Your task to perform on an android device: Search for Mexican restaurants on Maps Image 0: 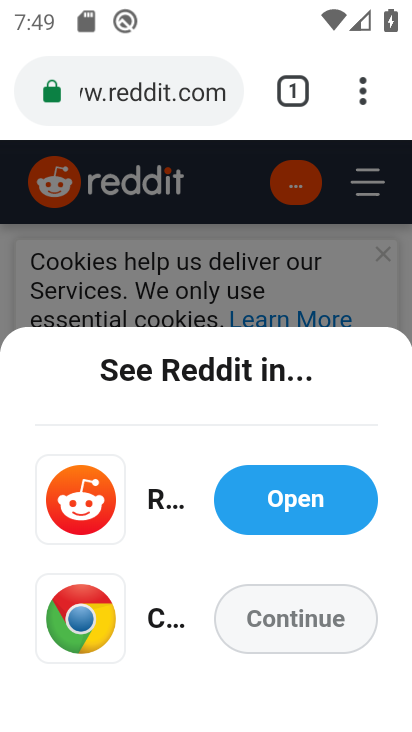
Step 0: press home button
Your task to perform on an android device: Search for Mexican restaurants on Maps Image 1: 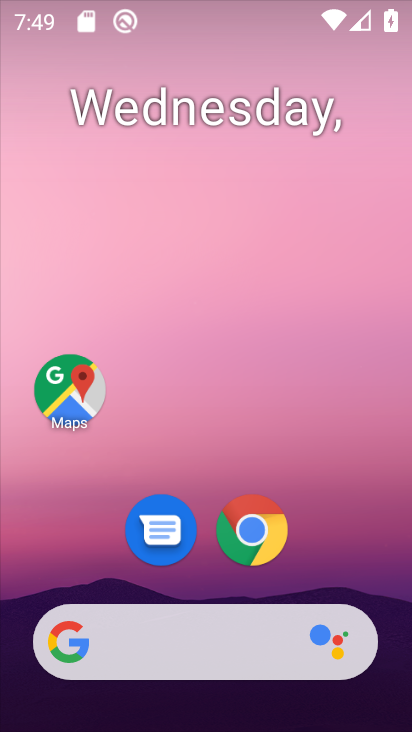
Step 1: drag from (401, 640) to (322, 107)
Your task to perform on an android device: Search for Mexican restaurants on Maps Image 2: 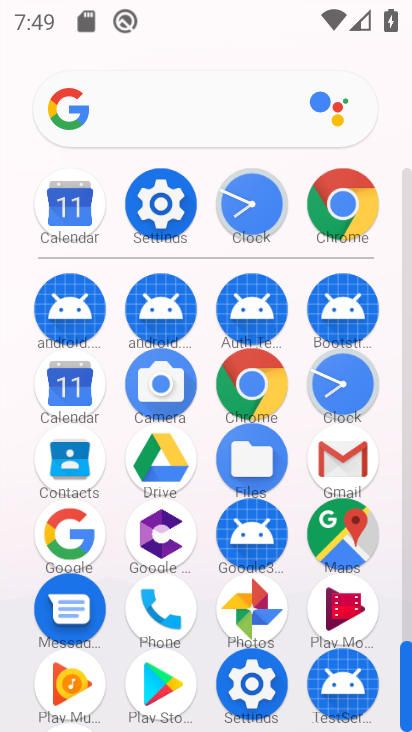
Step 2: click (337, 543)
Your task to perform on an android device: Search for Mexican restaurants on Maps Image 3: 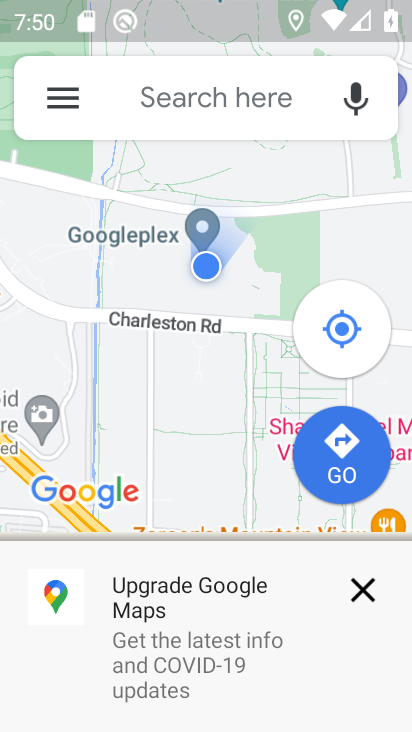
Step 3: click (366, 596)
Your task to perform on an android device: Search for Mexican restaurants on Maps Image 4: 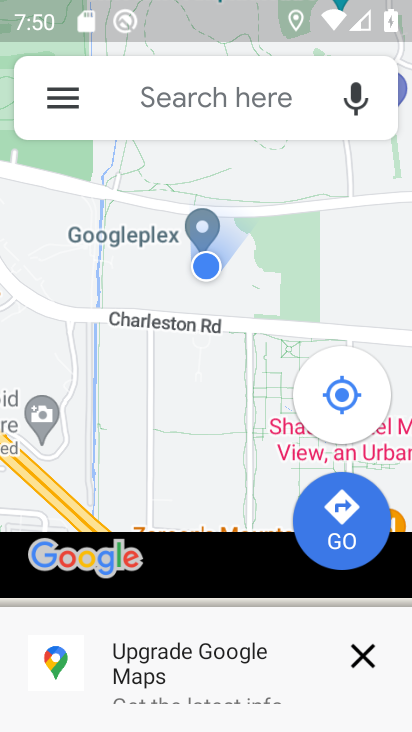
Step 4: click (179, 95)
Your task to perform on an android device: Search for Mexican restaurants on Maps Image 5: 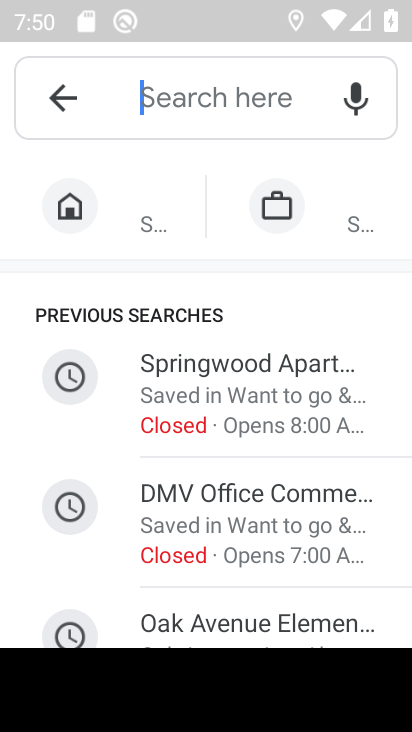
Step 5: drag from (152, 542) to (139, 120)
Your task to perform on an android device: Search for Mexican restaurants on Maps Image 6: 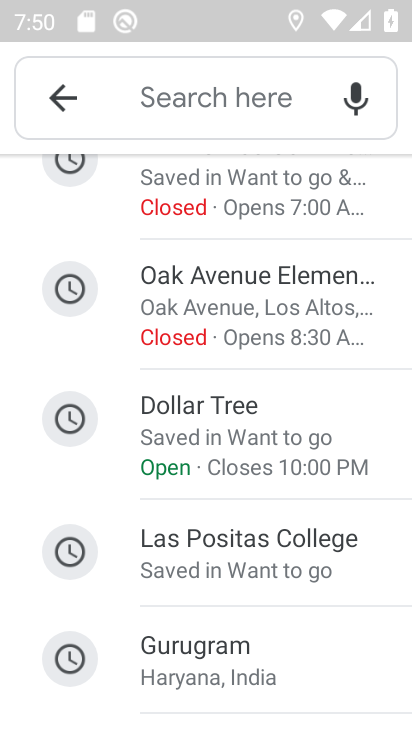
Step 6: drag from (133, 589) to (125, 171)
Your task to perform on an android device: Search for Mexican restaurants on Maps Image 7: 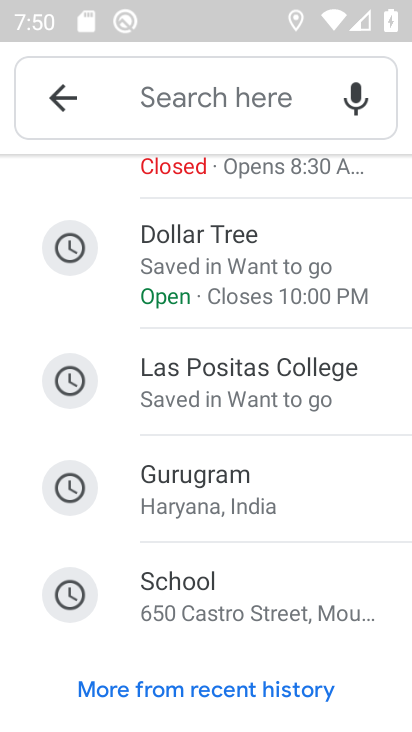
Step 7: click (127, 115)
Your task to perform on an android device: Search for Mexican restaurants on Maps Image 8: 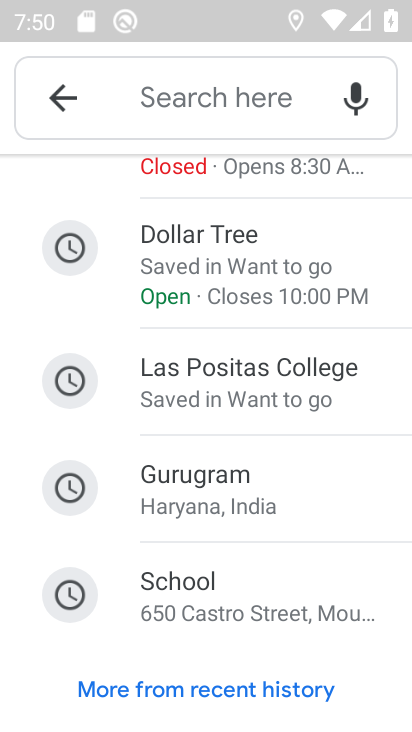
Step 8: click (173, 105)
Your task to perform on an android device: Search for Mexican restaurants on Maps Image 9: 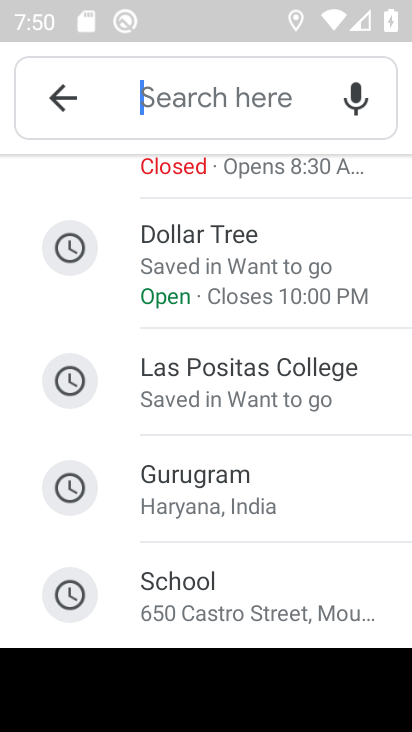
Step 9: type "mexican restaurants"
Your task to perform on an android device: Search for Mexican restaurants on Maps Image 10: 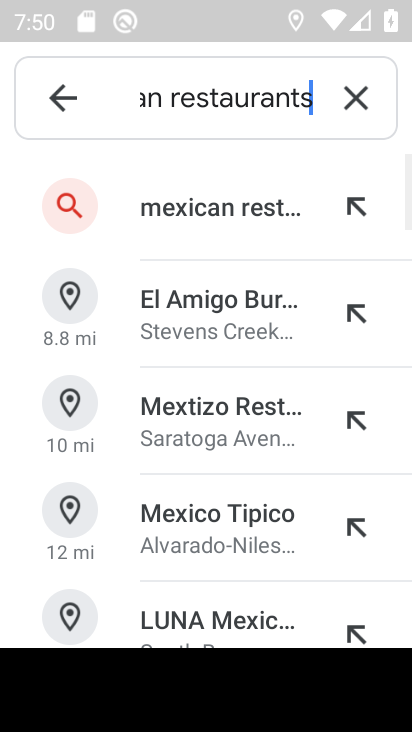
Step 10: click (183, 225)
Your task to perform on an android device: Search for Mexican restaurants on Maps Image 11: 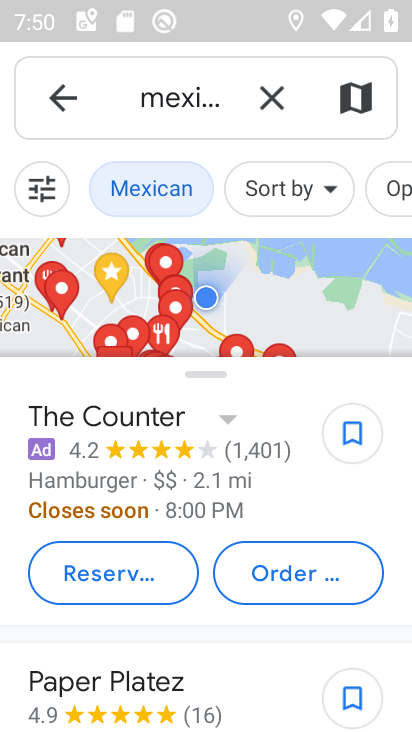
Step 11: task complete